Your task to perform on an android device: toggle notifications settings in the gmail app Image 0: 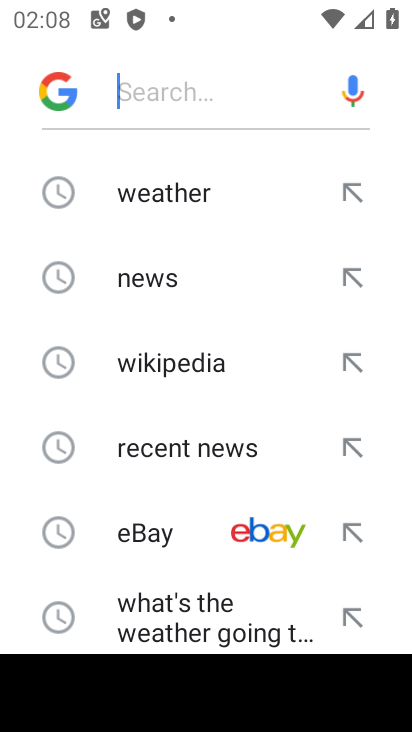
Step 0: press home button
Your task to perform on an android device: toggle notifications settings in the gmail app Image 1: 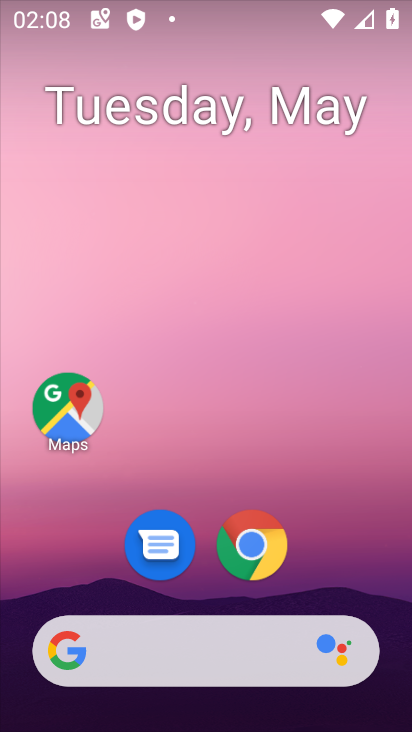
Step 1: drag from (400, 627) to (342, 69)
Your task to perform on an android device: toggle notifications settings in the gmail app Image 2: 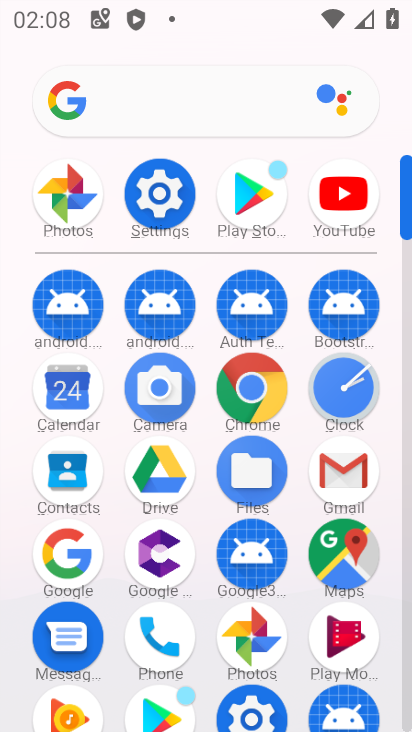
Step 2: click (409, 656)
Your task to perform on an android device: toggle notifications settings in the gmail app Image 3: 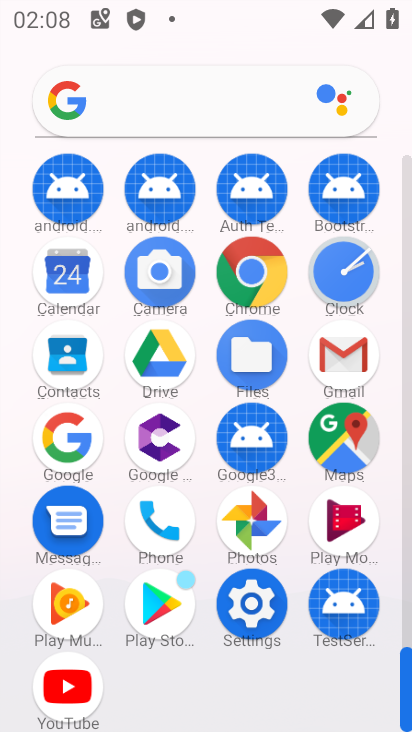
Step 3: click (342, 352)
Your task to perform on an android device: toggle notifications settings in the gmail app Image 4: 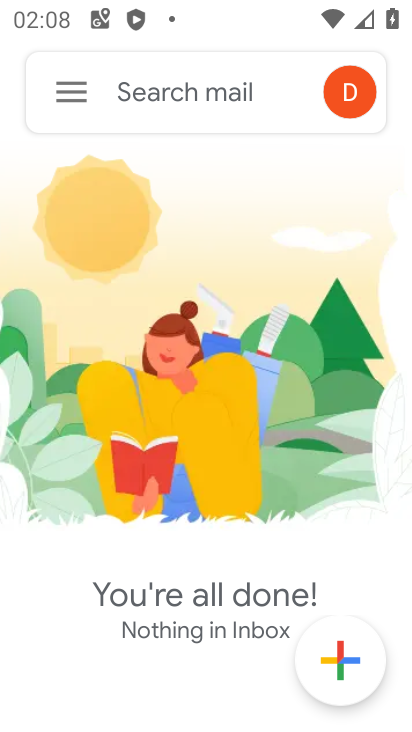
Step 4: click (63, 84)
Your task to perform on an android device: toggle notifications settings in the gmail app Image 5: 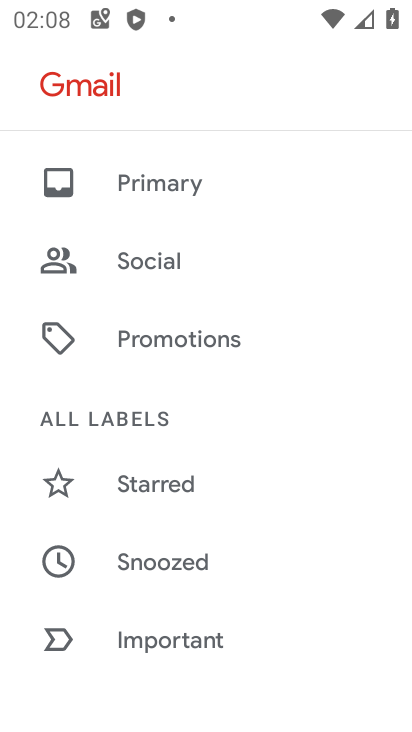
Step 5: drag from (274, 587) to (258, 197)
Your task to perform on an android device: toggle notifications settings in the gmail app Image 6: 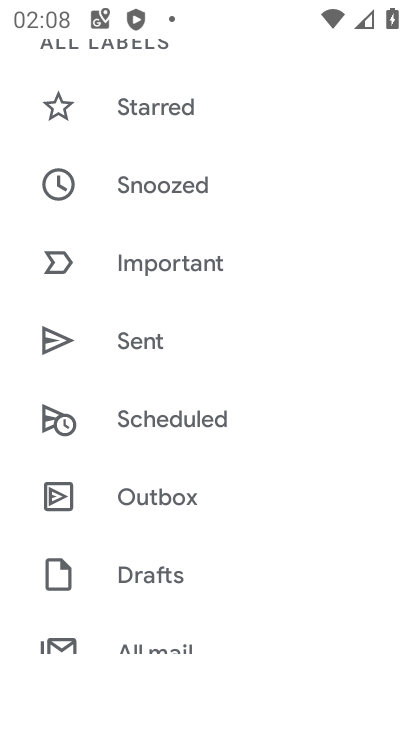
Step 6: drag from (265, 552) to (266, 210)
Your task to perform on an android device: toggle notifications settings in the gmail app Image 7: 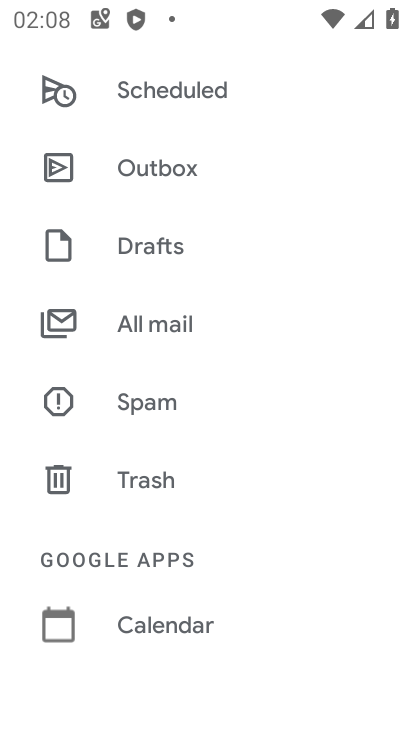
Step 7: drag from (255, 602) to (249, 180)
Your task to perform on an android device: toggle notifications settings in the gmail app Image 8: 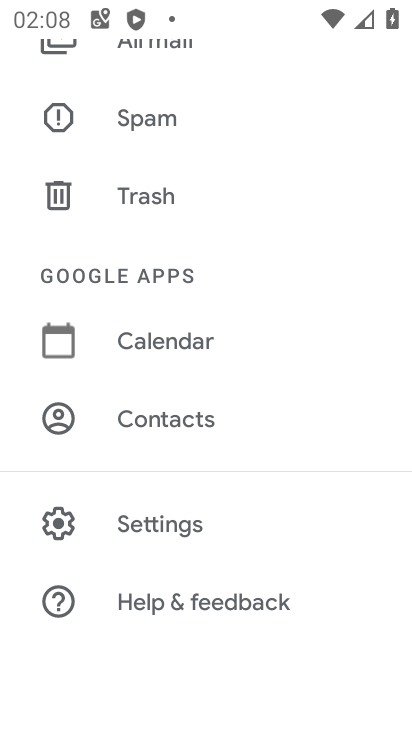
Step 8: click (169, 523)
Your task to perform on an android device: toggle notifications settings in the gmail app Image 9: 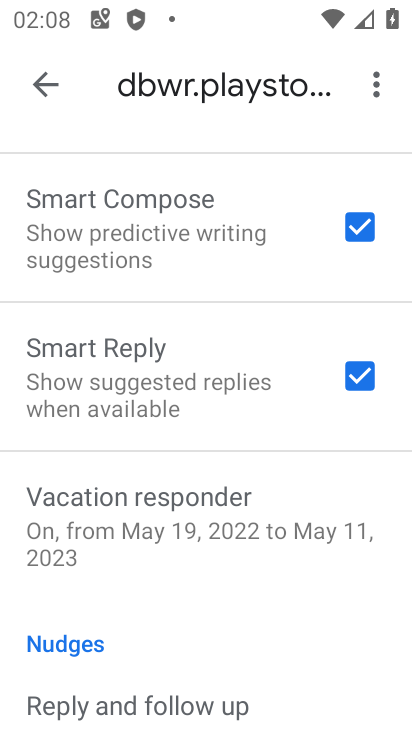
Step 9: drag from (282, 231) to (241, 603)
Your task to perform on an android device: toggle notifications settings in the gmail app Image 10: 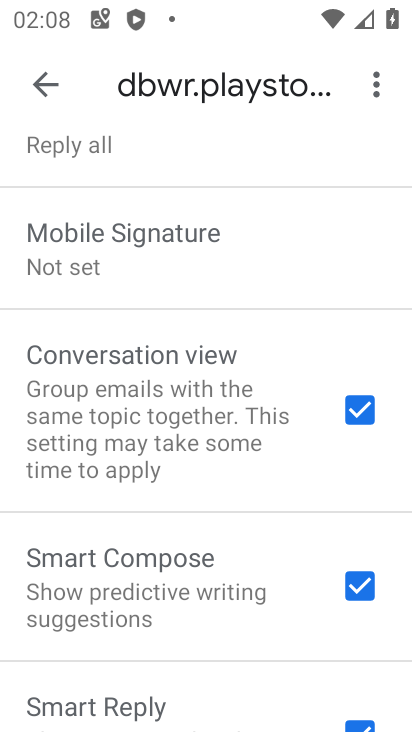
Step 10: drag from (265, 319) to (246, 609)
Your task to perform on an android device: toggle notifications settings in the gmail app Image 11: 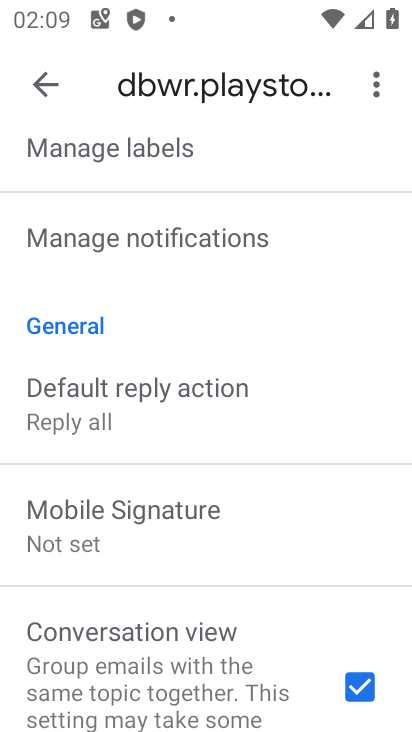
Step 11: drag from (283, 308) to (261, 621)
Your task to perform on an android device: toggle notifications settings in the gmail app Image 12: 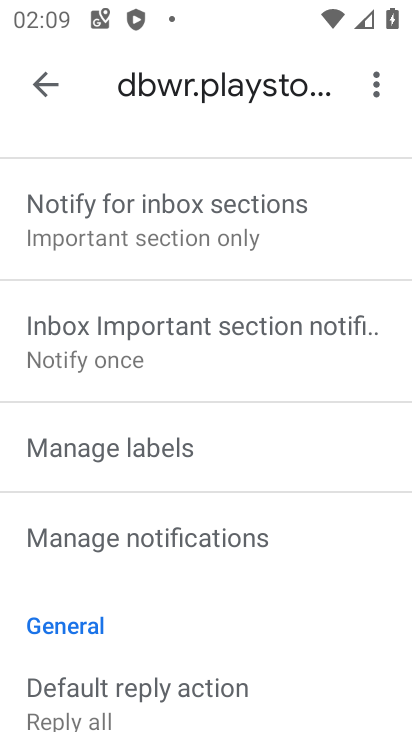
Step 12: click (126, 535)
Your task to perform on an android device: toggle notifications settings in the gmail app Image 13: 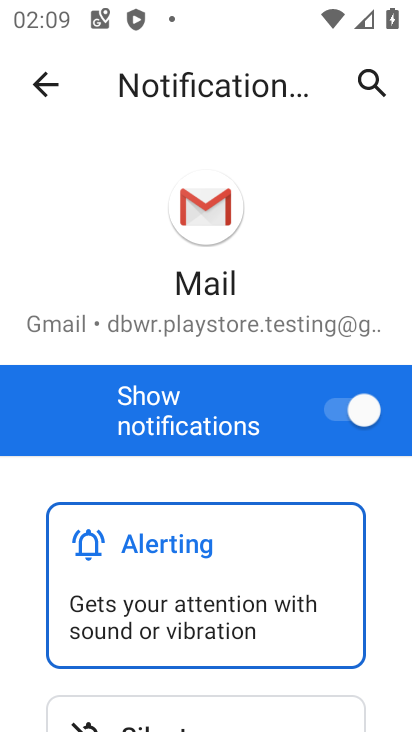
Step 13: click (332, 404)
Your task to perform on an android device: toggle notifications settings in the gmail app Image 14: 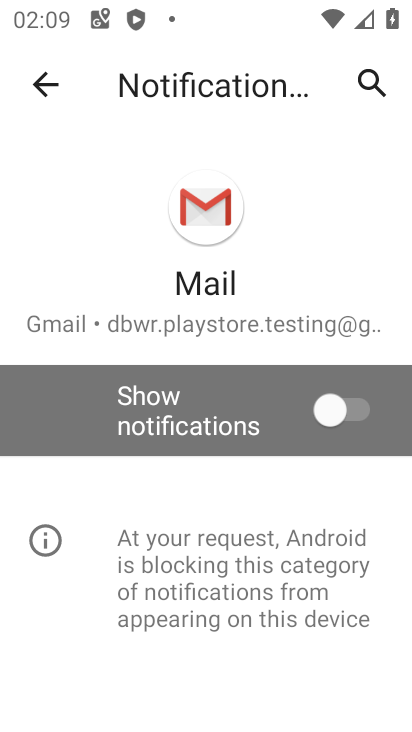
Step 14: task complete